Your task to perform on an android device: Go to network settings Image 0: 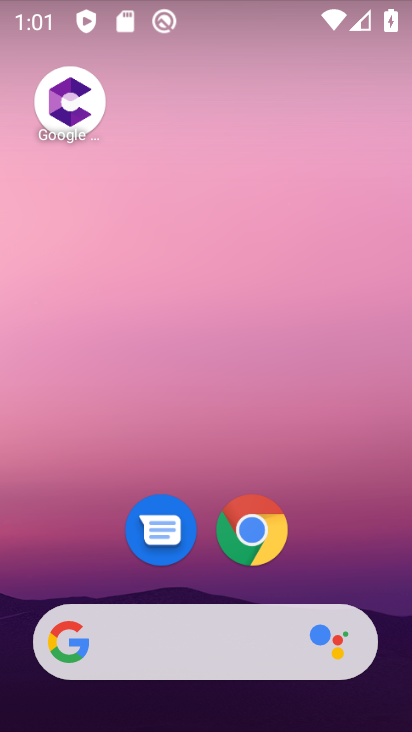
Step 0: drag from (325, 559) to (279, 0)
Your task to perform on an android device: Go to network settings Image 1: 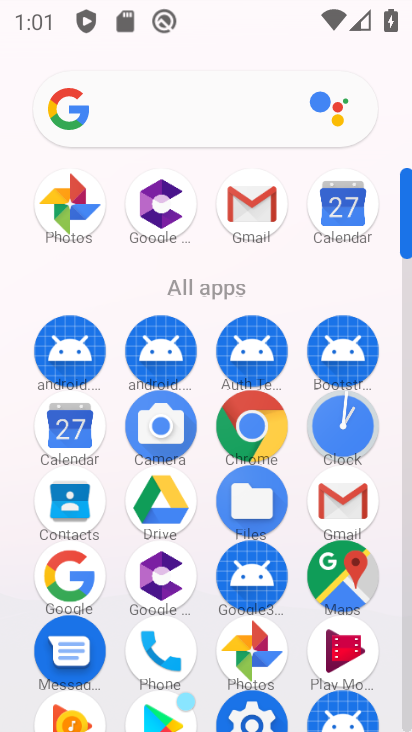
Step 1: click (247, 706)
Your task to perform on an android device: Go to network settings Image 2: 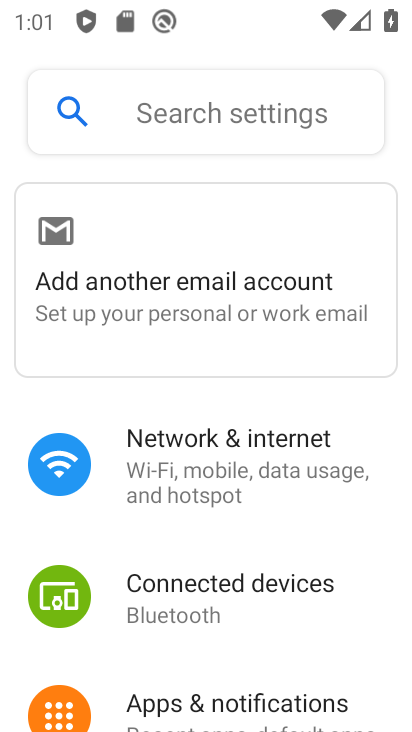
Step 2: click (231, 465)
Your task to perform on an android device: Go to network settings Image 3: 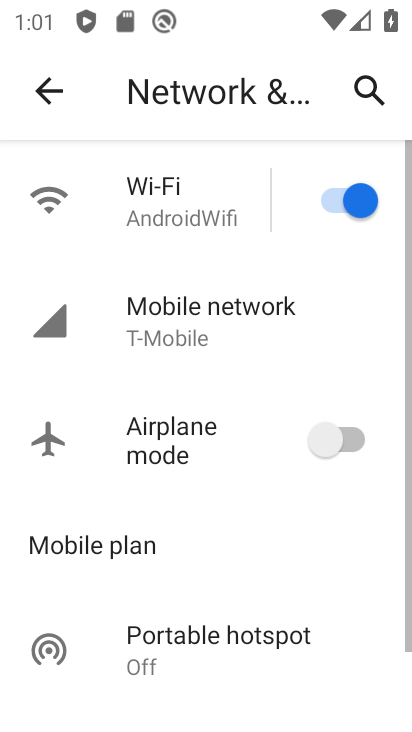
Step 3: click (203, 302)
Your task to perform on an android device: Go to network settings Image 4: 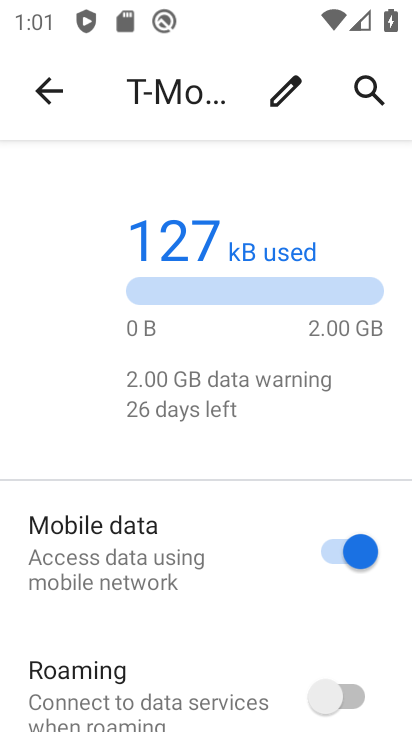
Step 4: task complete